Your task to perform on an android device: Open Wikipedia Image 0: 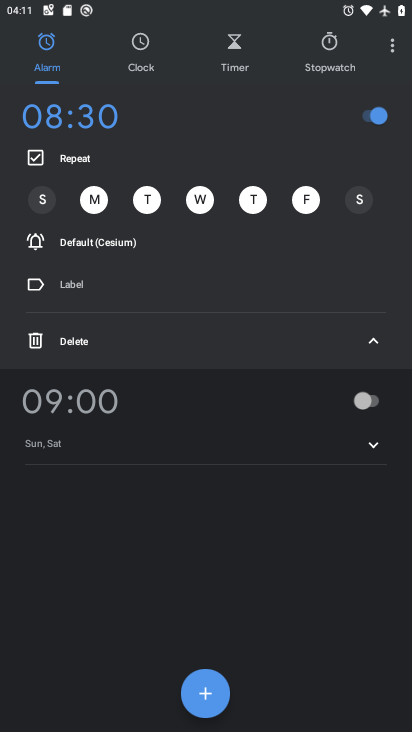
Step 0: click (268, 610)
Your task to perform on an android device: Open Wikipedia Image 1: 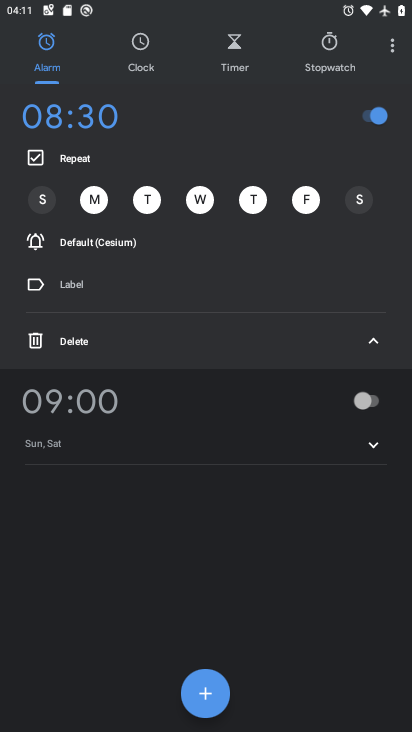
Step 1: press home button
Your task to perform on an android device: Open Wikipedia Image 2: 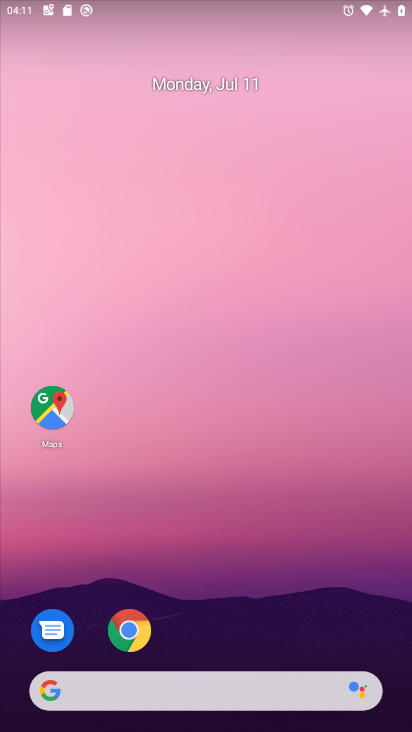
Step 2: drag from (321, 643) to (257, 196)
Your task to perform on an android device: Open Wikipedia Image 3: 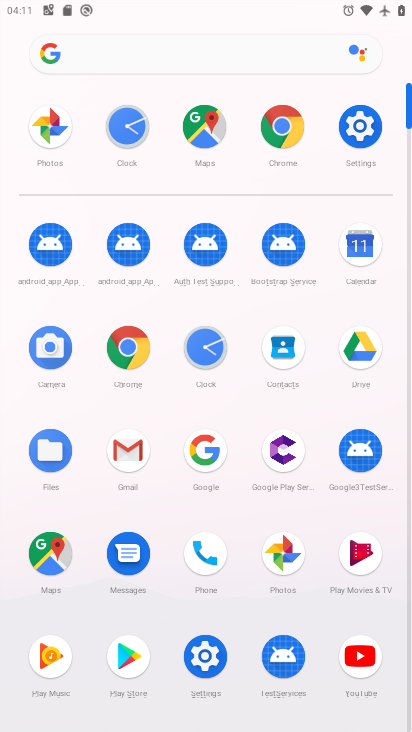
Step 3: click (235, 67)
Your task to perform on an android device: Open Wikipedia Image 4: 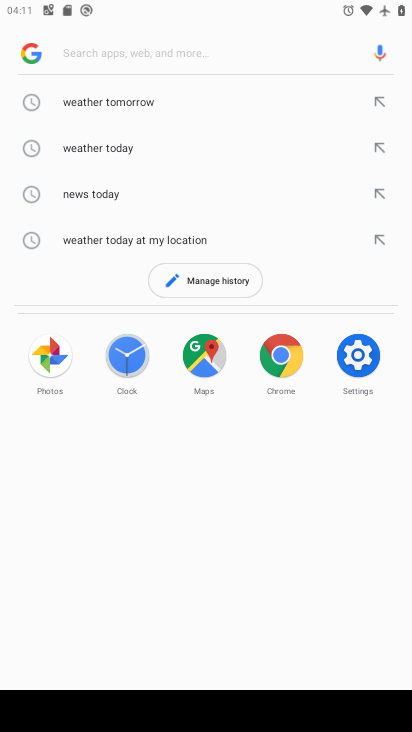
Step 4: type "wiki"
Your task to perform on an android device: Open Wikipedia Image 5: 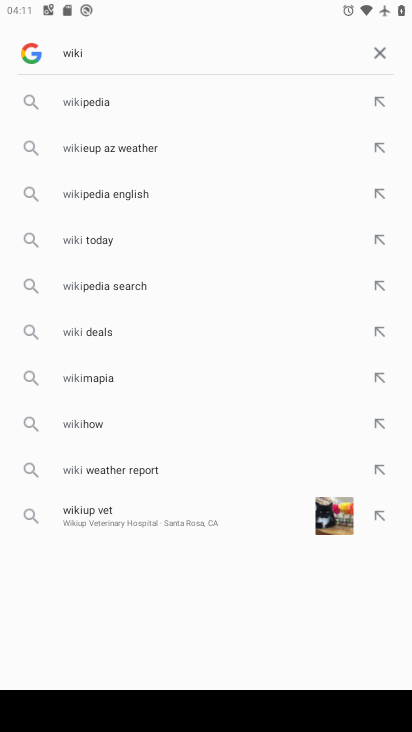
Step 5: click (218, 97)
Your task to perform on an android device: Open Wikipedia Image 6: 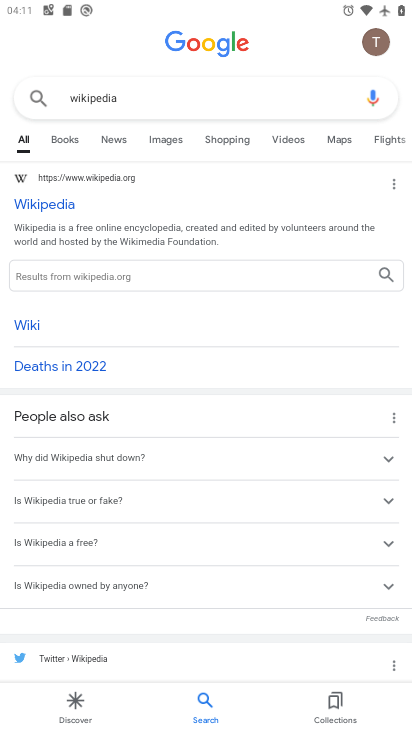
Step 6: click (60, 217)
Your task to perform on an android device: Open Wikipedia Image 7: 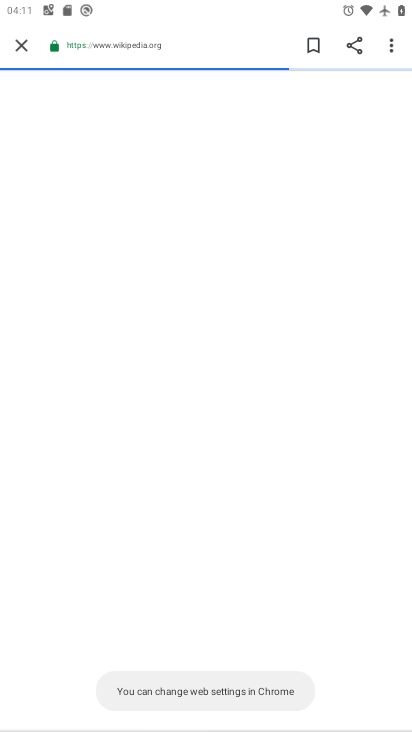
Step 7: task complete